Your task to perform on an android device: Open calendar and show me the second week of next month Image 0: 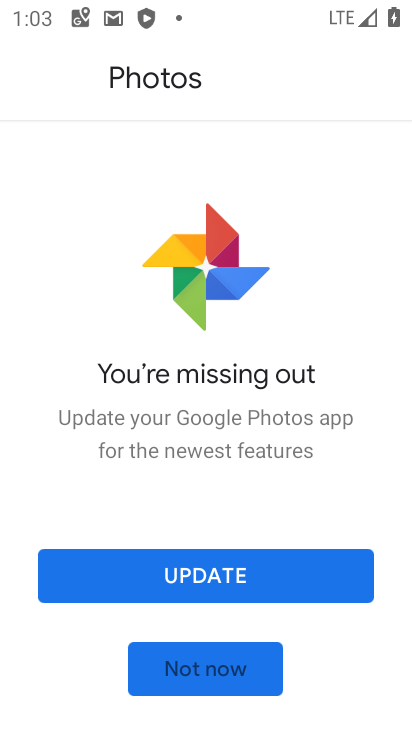
Step 0: press home button
Your task to perform on an android device: Open calendar and show me the second week of next month Image 1: 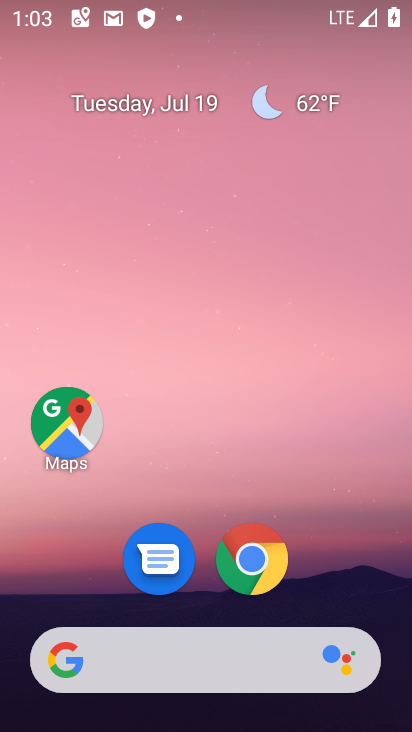
Step 1: drag from (192, 624) to (370, 57)
Your task to perform on an android device: Open calendar and show me the second week of next month Image 2: 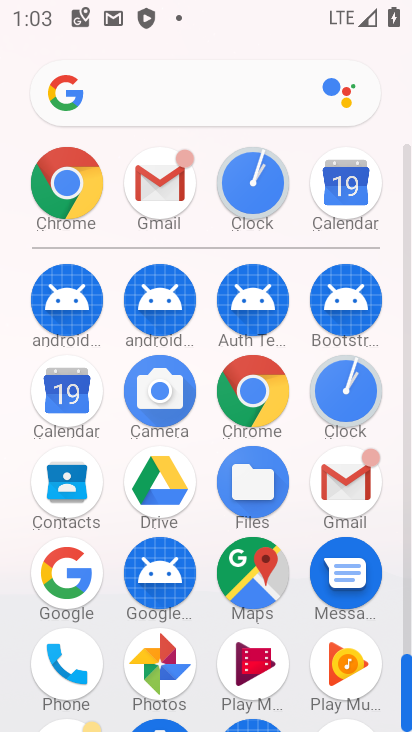
Step 2: click (89, 395)
Your task to perform on an android device: Open calendar and show me the second week of next month Image 3: 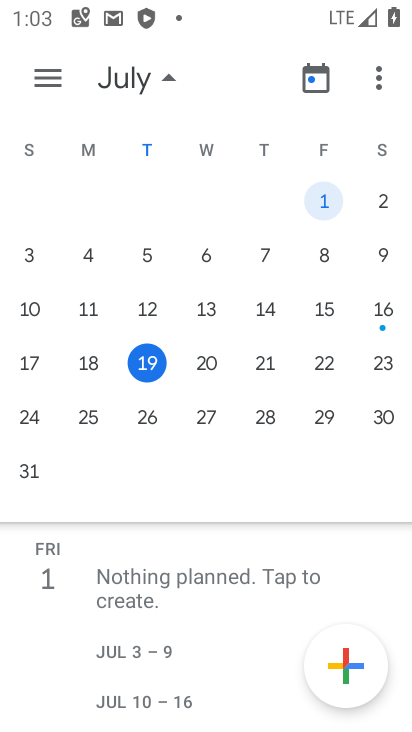
Step 3: drag from (314, 353) to (5, 275)
Your task to perform on an android device: Open calendar and show me the second week of next month Image 4: 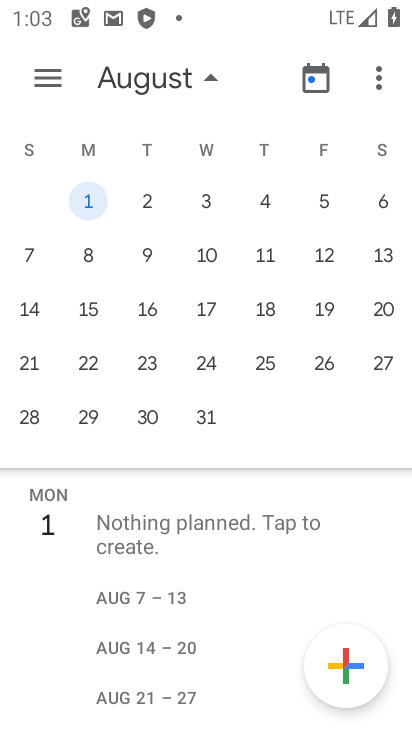
Step 4: click (89, 270)
Your task to perform on an android device: Open calendar and show me the second week of next month Image 5: 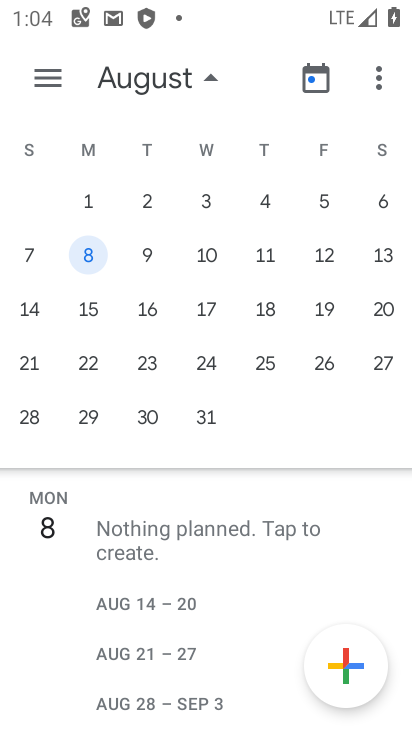
Step 5: task complete